Your task to perform on an android device: Search for pizza restaurants on Maps Image 0: 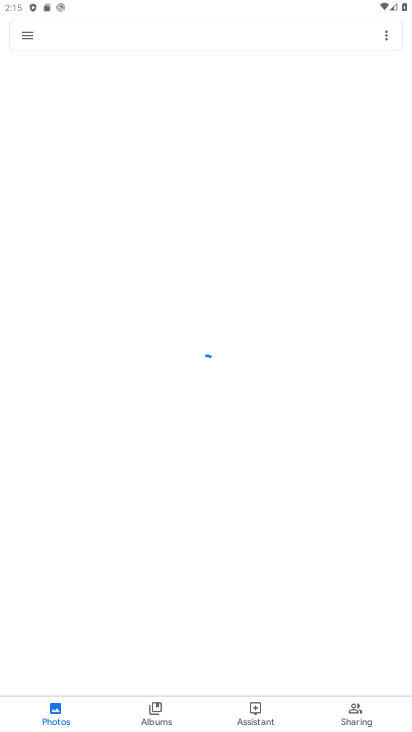
Step 0: press home button
Your task to perform on an android device: Search for pizza restaurants on Maps Image 1: 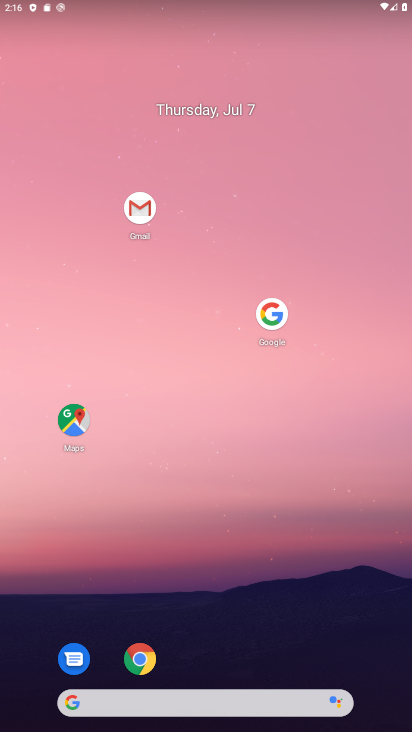
Step 1: click (77, 412)
Your task to perform on an android device: Search for pizza restaurants on Maps Image 2: 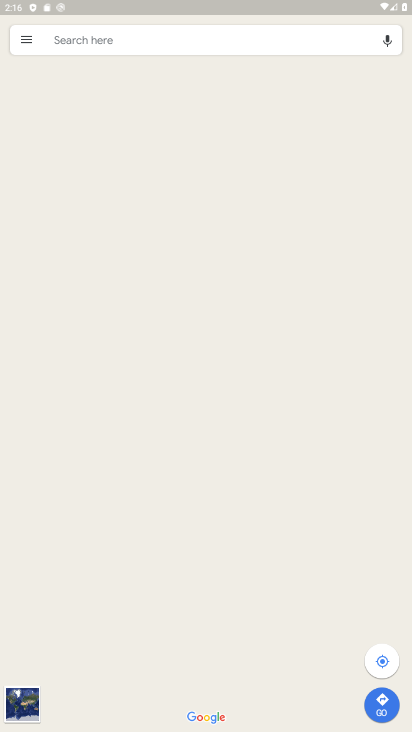
Step 2: click (213, 43)
Your task to perform on an android device: Search for pizza restaurants on Maps Image 3: 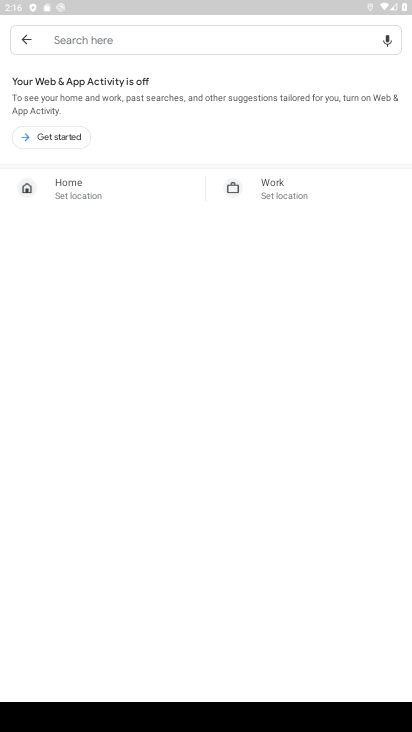
Step 3: type "pizza restaurants"
Your task to perform on an android device: Search for pizza restaurants on Maps Image 4: 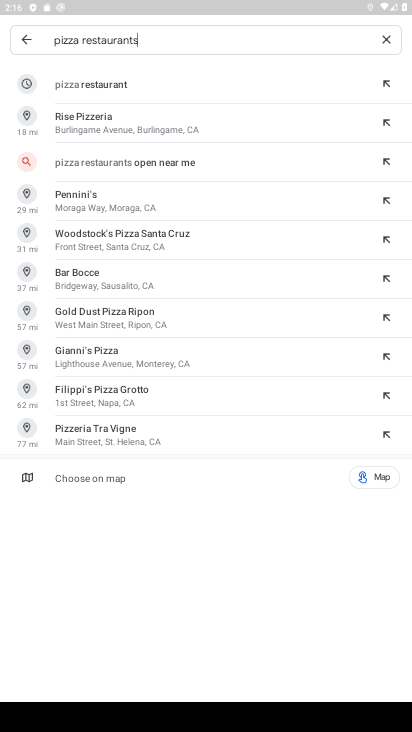
Step 4: click (239, 93)
Your task to perform on an android device: Search for pizza restaurants on Maps Image 5: 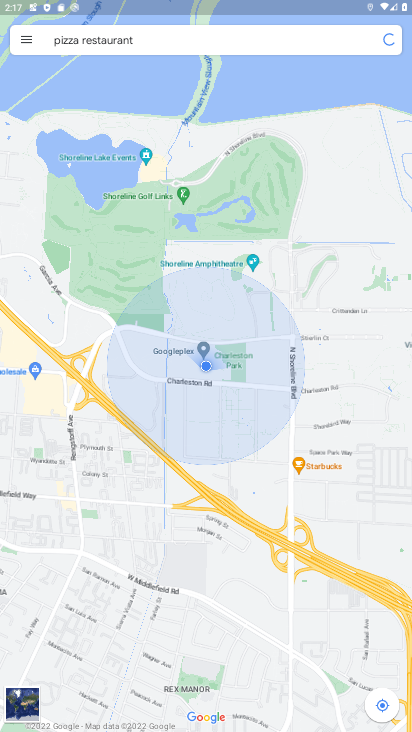
Step 5: task complete